Your task to perform on an android device: Show me popular videos on Youtube Image 0: 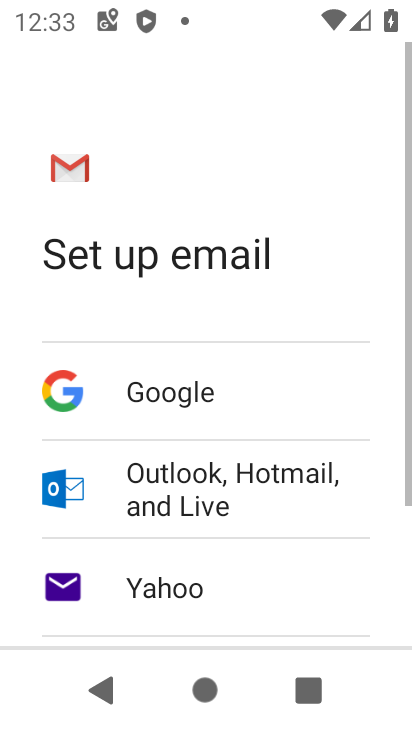
Step 0: press home button
Your task to perform on an android device: Show me popular videos on Youtube Image 1: 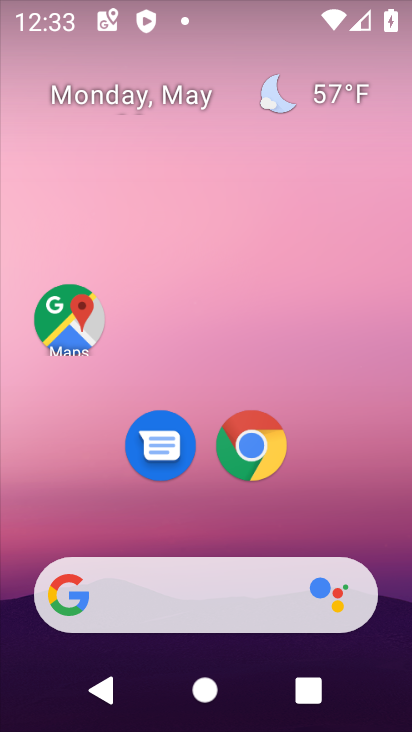
Step 1: drag from (353, 161) to (358, 6)
Your task to perform on an android device: Show me popular videos on Youtube Image 2: 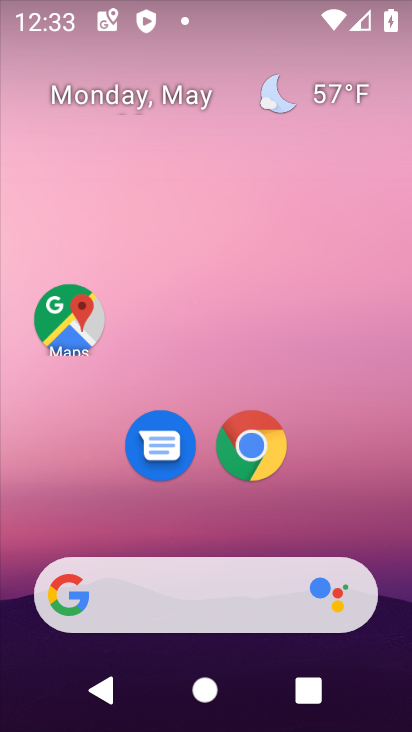
Step 2: drag from (333, 294) to (334, 223)
Your task to perform on an android device: Show me popular videos on Youtube Image 3: 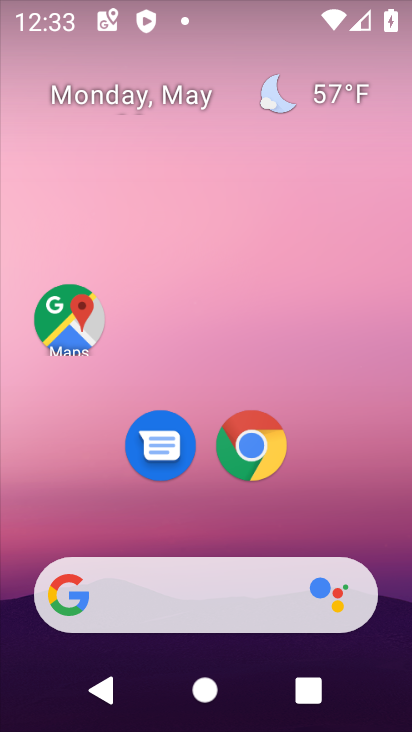
Step 3: drag from (410, 512) to (406, 283)
Your task to perform on an android device: Show me popular videos on Youtube Image 4: 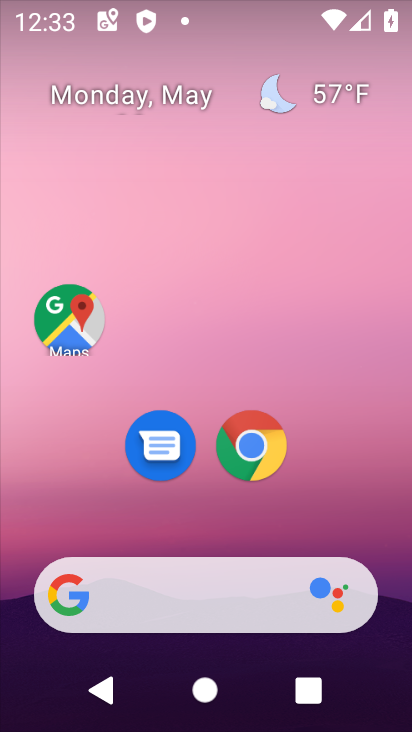
Step 4: drag from (311, 485) to (291, 139)
Your task to perform on an android device: Show me popular videos on Youtube Image 5: 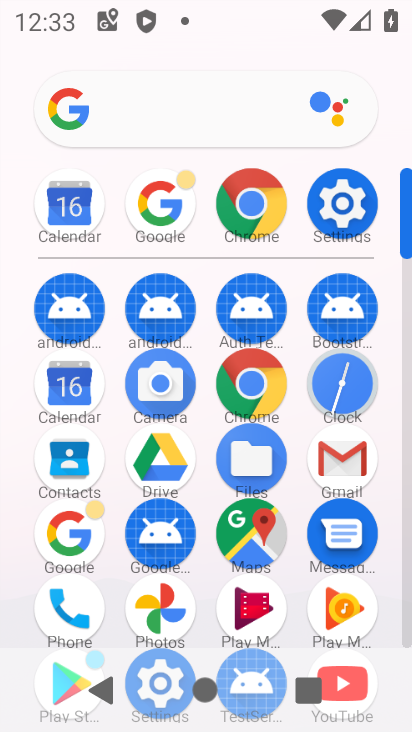
Step 5: drag from (292, 587) to (315, 191)
Your task to perform on an android device: Show me popular videos on Youtube Image 6: 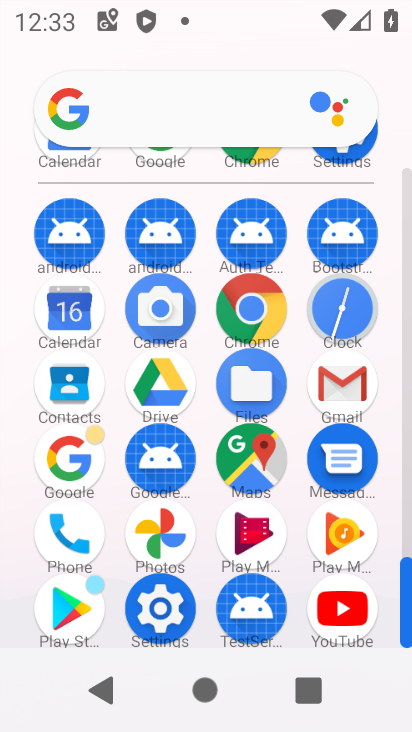
Step 6: click (327, 598)
Your task to perform on an android device: Show me popular videos on Youtube Image 7: 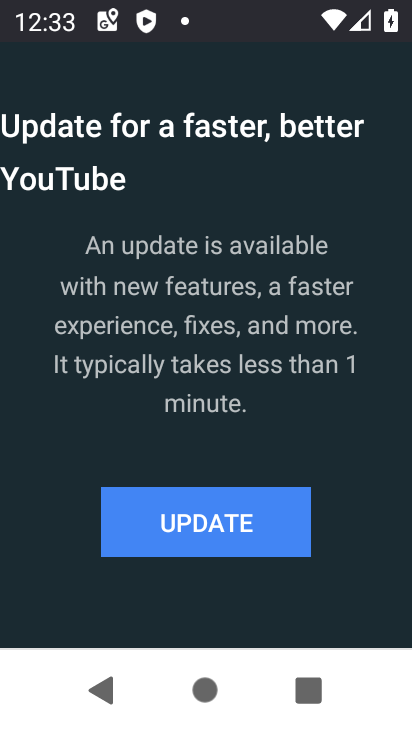
Step 7: click (213, 511)
Your task to perform on an android device: Show me popular videos on Youtube Image 8: 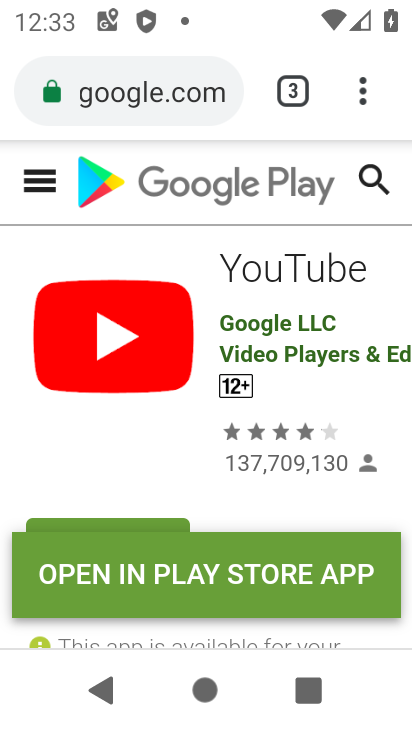
Step 8: drag from (243, 449) to (259, 212)
Your task to perform on an android device: Show me popular videos on Youtube Image 9: 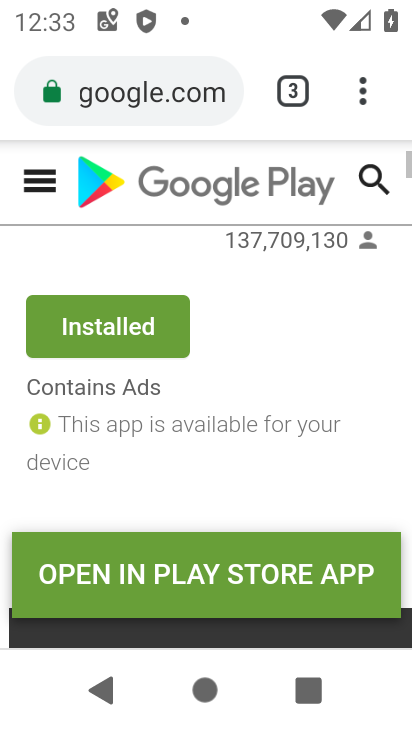
Step 9: click (267, 201)
Your task to perform on an android device: Show me popular videos on Youtube Image 10: 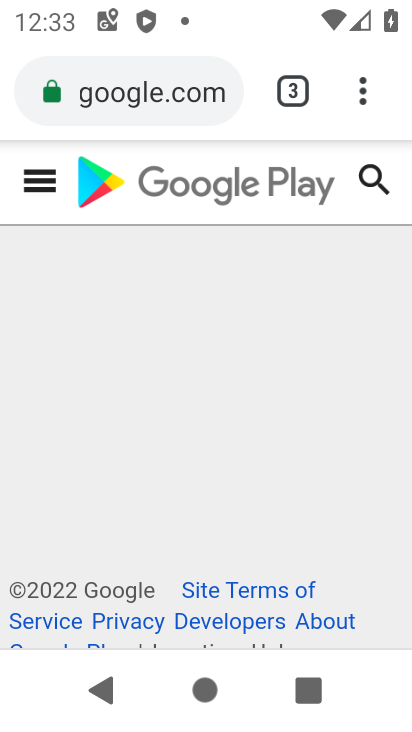
Step 10: click (138, 323)
Your task to perform on an android device: Show me popular videos on Youtube Image 11: 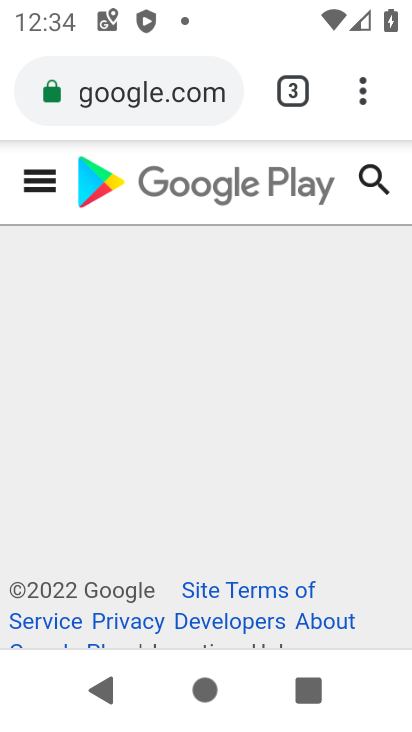
Step 11: drag from (297, 534) to (271, 260)
Your task to perform on an android device: Show me popular videos on Youtube Image 12: 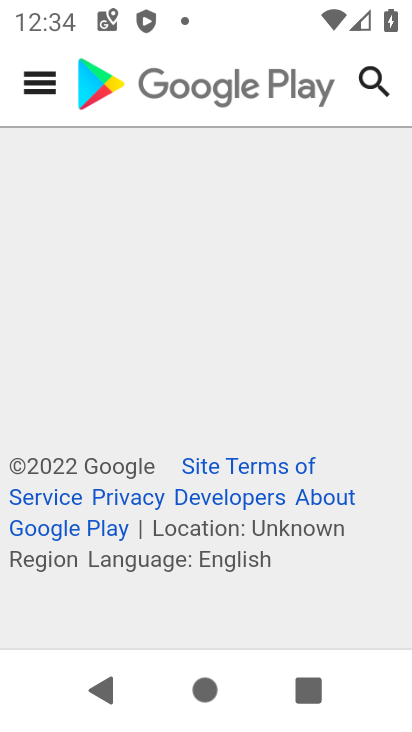
Step 12: drag from (322, 568) to (317, 291)
Your task to perform on an android device: Show me popular videos on Youtube Image 13: 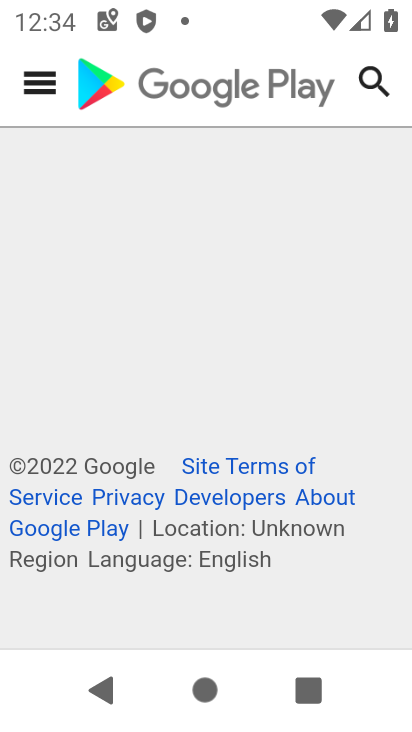
Step 13: click (304, 260)
Your task to perform on an android device: Show me popular videos on Youtube Image 14: 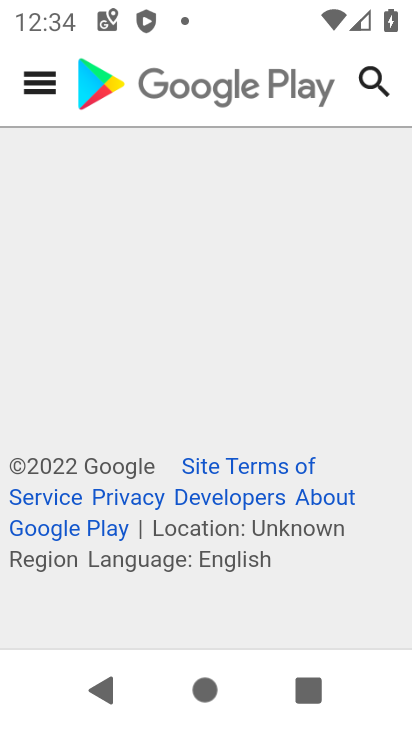
Step 14: drag from (319, 406) to (305, 577)
Your task to perform on an android device: Show me popular videos on Youtube Image 15: 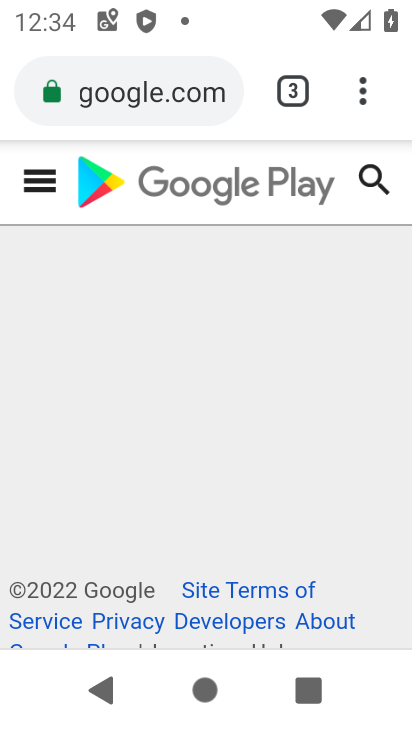
Step 15: press back button
Your task to perform on an android device: Show me popular videos on Youtube Image 16: 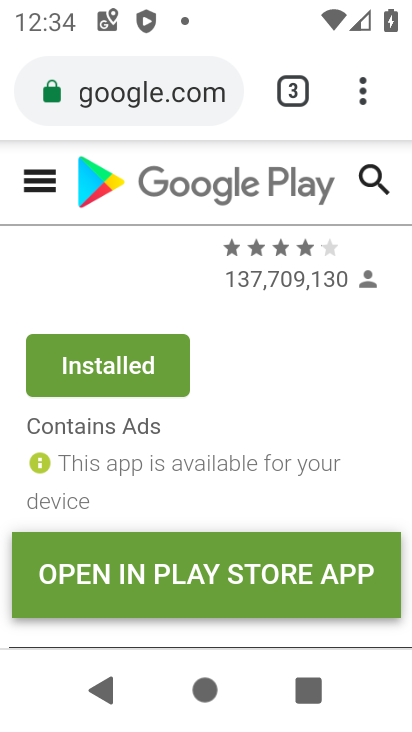
Step 16: click (125, 371)
Your task to perform on an android device: Show me popular videos on Youtube Image 17: 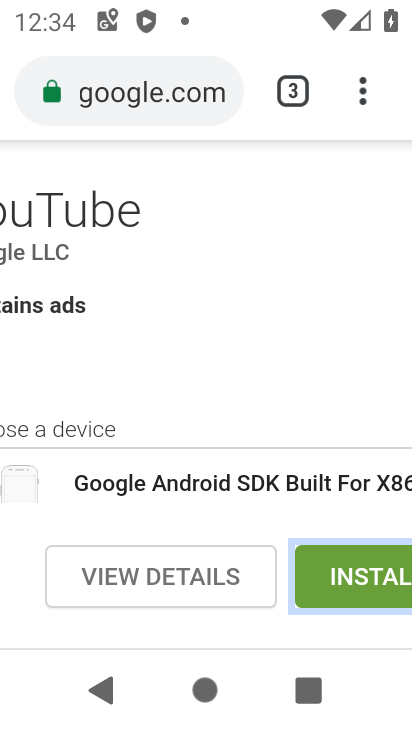
Step 17: click (368, 578)
Your task to perform on an android device: Show me popular videos on Youtube Image 18: 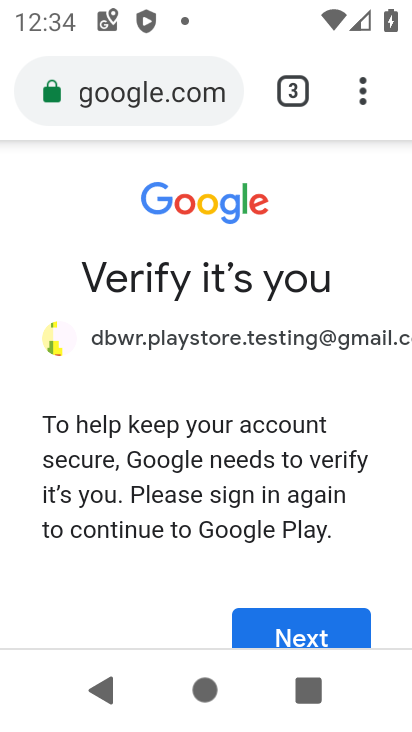
Step 18: click (331, 617)
Your task to perform on an android device: Show me popular videos on Youtube Image 19: 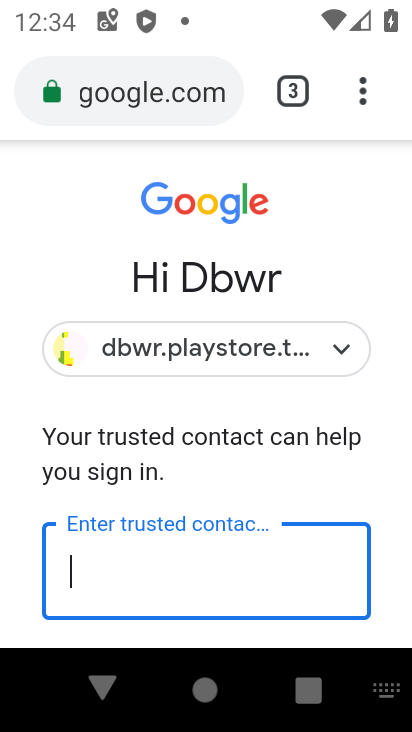
Step 19: task complete